Your task to perform on an android device: turn on notifications settings in the gmail app Image 0: 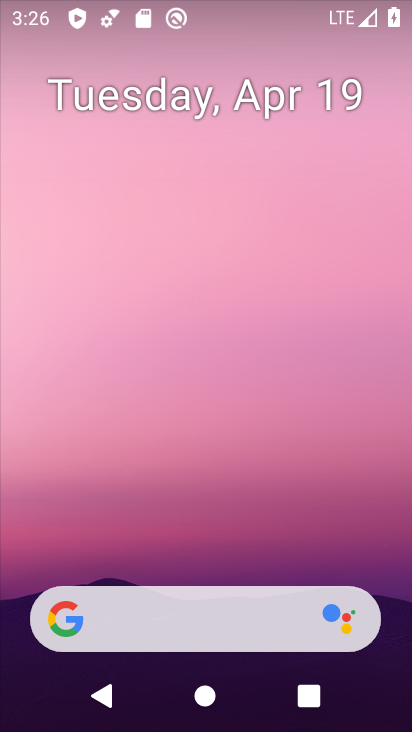
Step 0: drag from (192, 556) to (274, 32)
Your task to perform on an android device: turn on notifications settings in the gmail app Image 1: 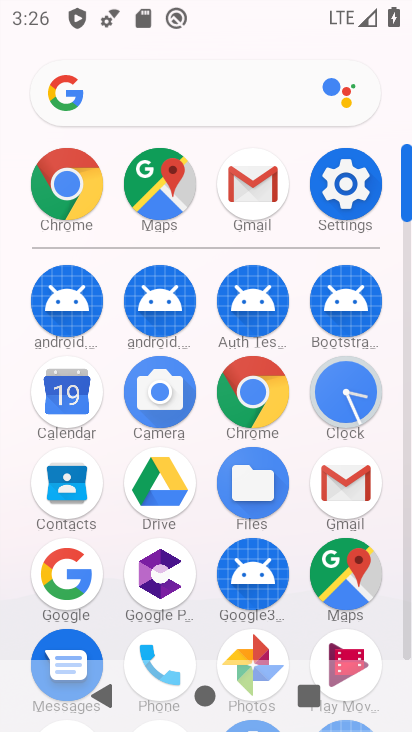
Step 1: click (250, 185)
Your task to perform on an android device: turn on notifications settings in the gmail app Image 2: 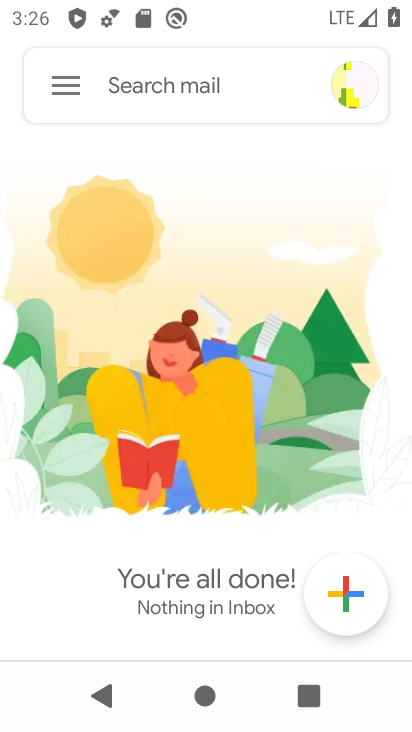
Step 2: click (70, 83)
Your task to perform on an android device: turn on notifications settings in the gmail app Image 3: 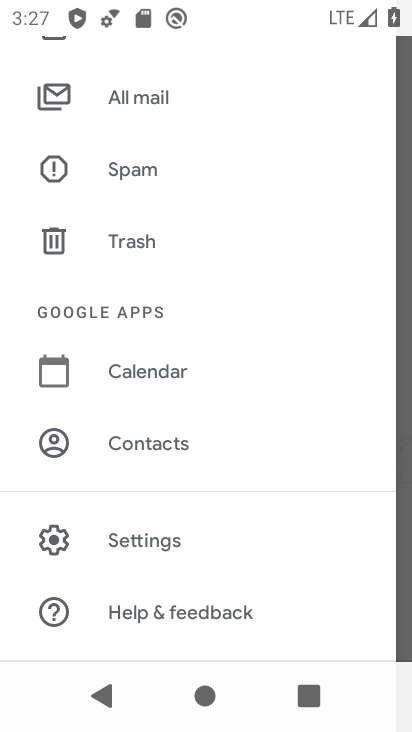
Step 3: click (146, 535)
Your task to perform on an android device: turn on notifications settings in the gmail app Image 4: 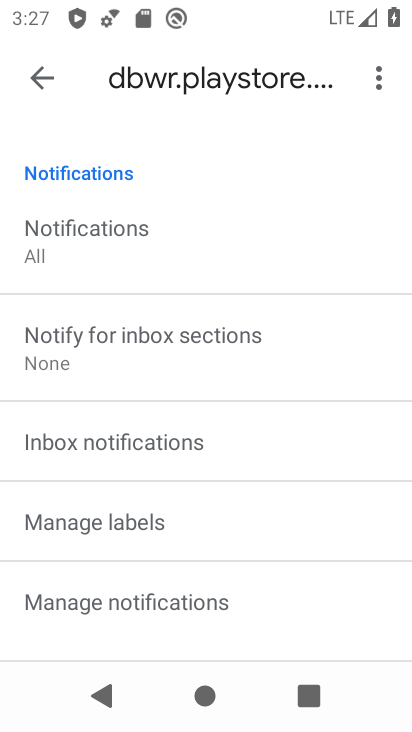
Step 4: click (111, 604)
Your task to perform on an android device: turn on notifications settings in the gmail app Image 5: 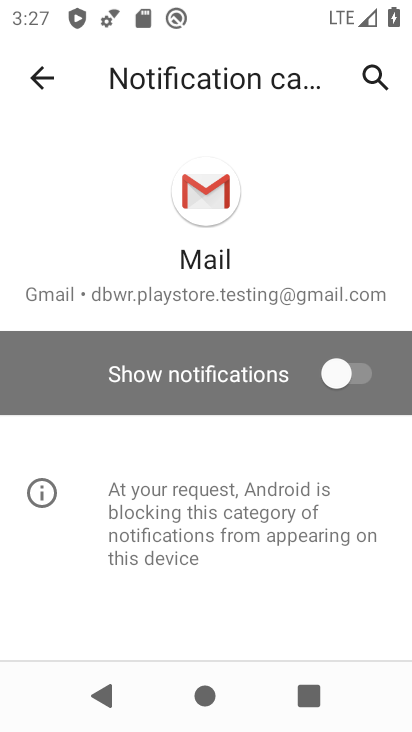
Step 5: click (342, 364)
Your task to perform on an android device: turn on notifications settings in the gmail app Image 6: 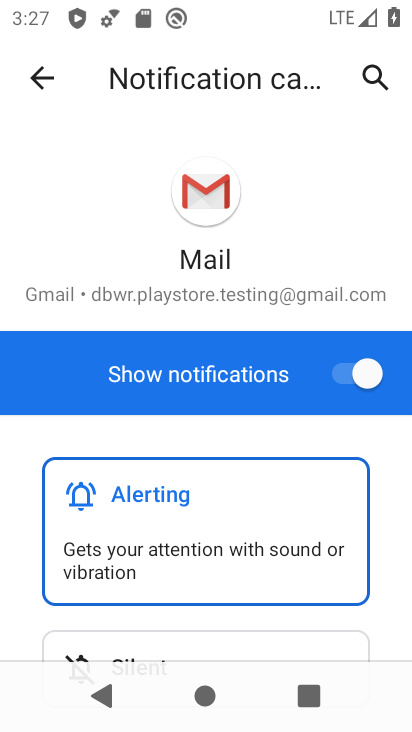
Step 6: task complete